Your task to perform on an android device: open a bookmark in the chrome app Image 0: 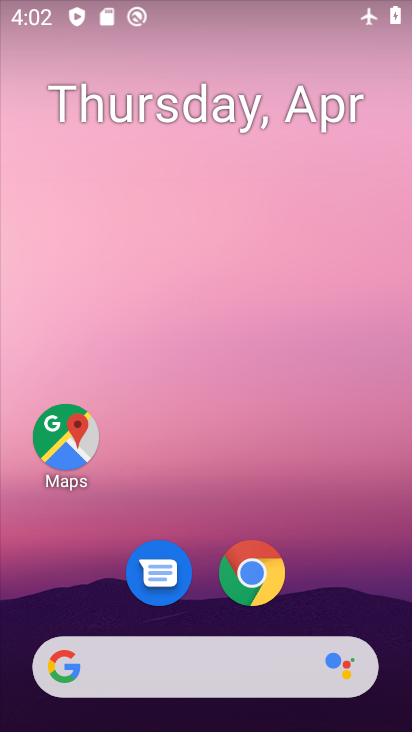
Step 0: drag from (346, 575) to (258, 59)
Your task to perform on an android device: open a bookmark in the chrome app Image 1: 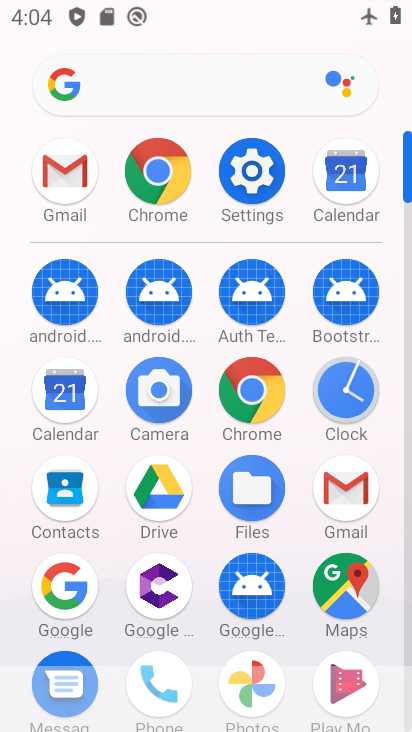
Step 1: click (231, 405)
Your task to perform on an android device: open a bookmark in the chrome app Image 2: 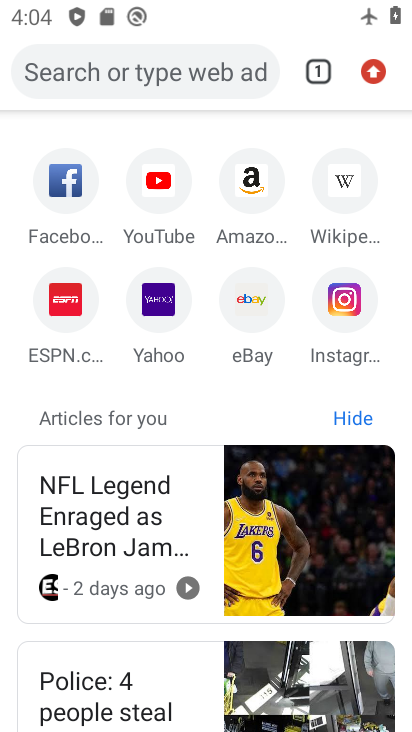
Step 2: click (367, 69)
Your task to perform on an android device: open a bookmark in the chrome app Image 3: 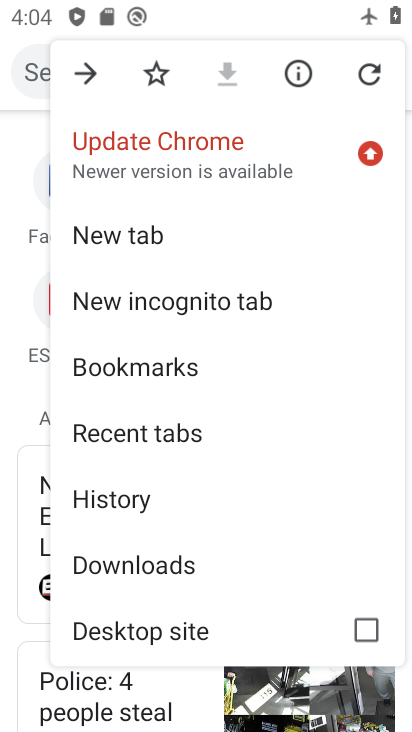
Step 3: click (219, 372)
Your task to perform on an android device: open a bookmark in the chrome app Image 4: 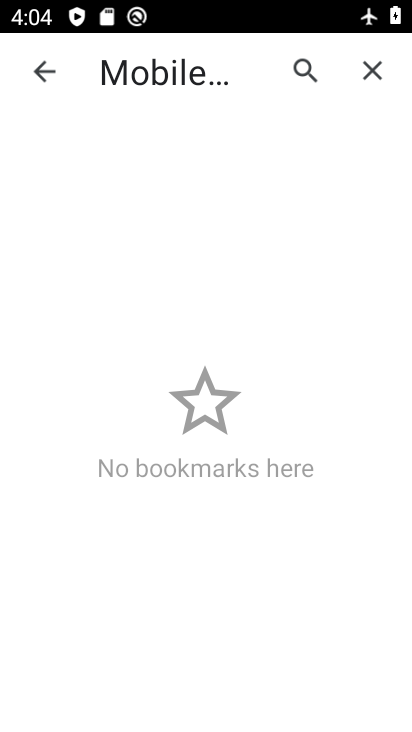
Step 4: task complete